Your task to perform on an android device: turn off notifications settings in the gmail app Image 0: 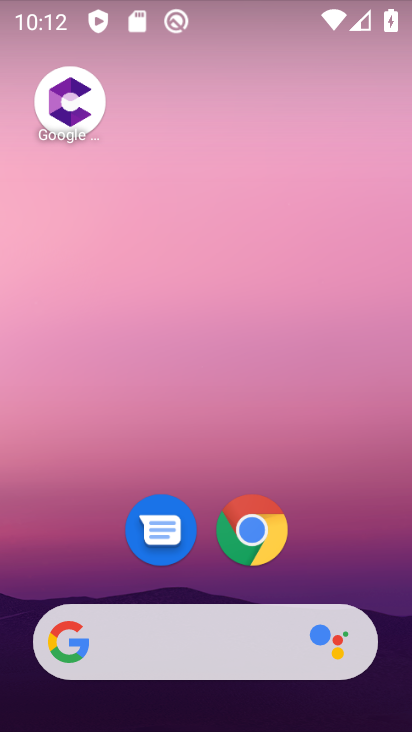
Step 0: drag from (335, 589) to (404, 17)
Your task to perform on an android device: turn off notifications settings in the gmail app Image 1: 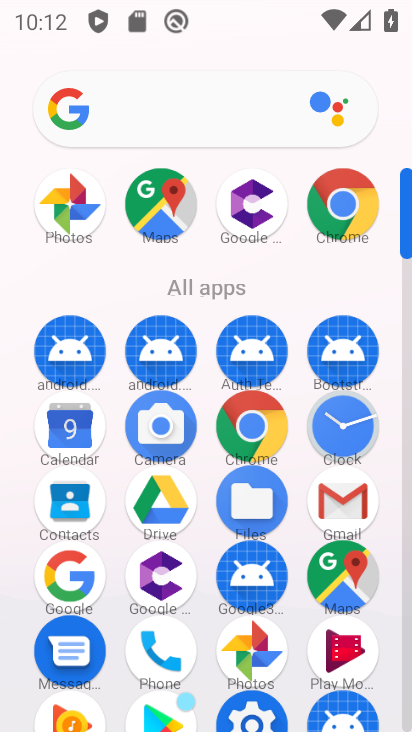
Step 1: click (349, 502)
Your task to perform on an android device: turn off notifications settings in the gmail app Image 2: 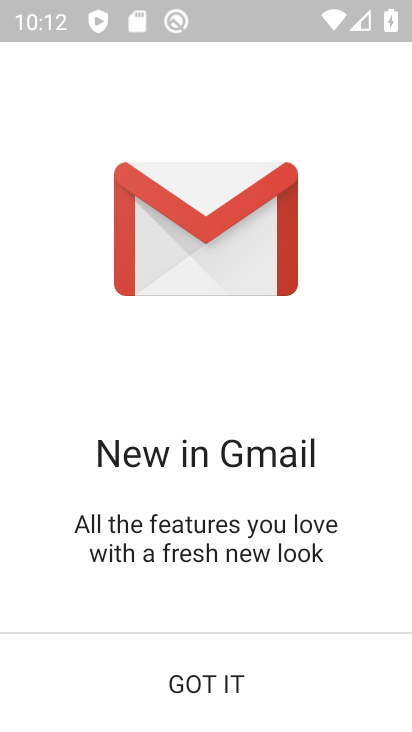
Step 2: click (322, 624)
Your task to perform on an android device: turn off notifications settings in the gmail app Image 3: 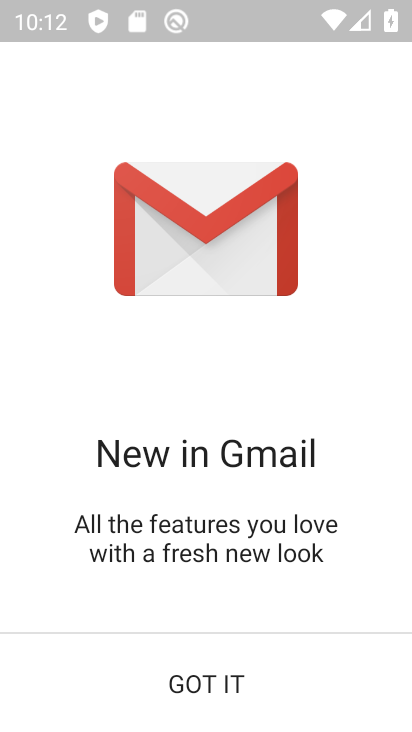
Step 3: click (310, 667)
Your task to perform on an android device: turn off notifications settings in the gmail app Image 4: 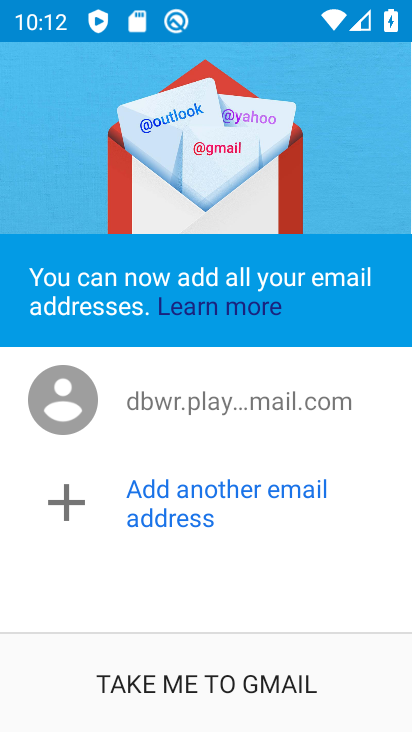
Step 4: click (326, 687)
Your task to perform on an android device: turn off notifications settings in the gmail app Image 5: 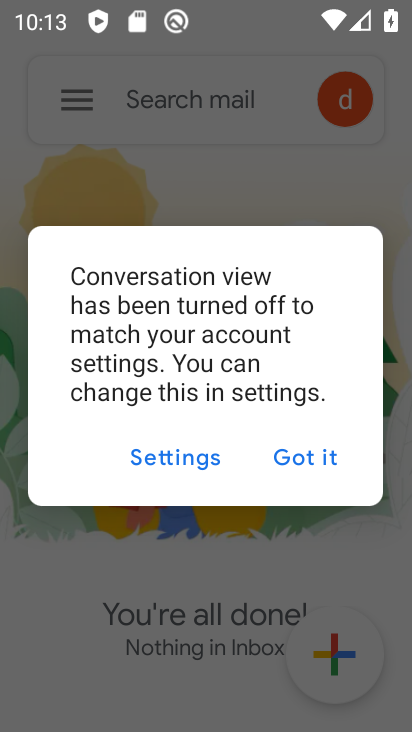
Step 5: click (309, 457)
Your task to perform on an android device: turn off notifications settings in the gmail app Image 6: 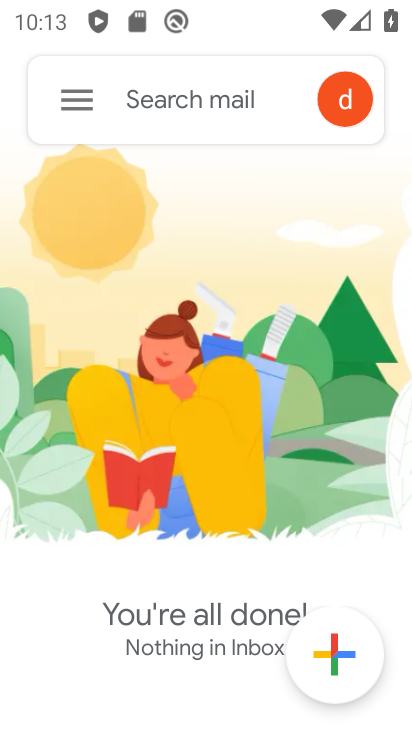
Step 6: click (92, 96)
Your task to perform on an android device: turn off notifications settings in the gmail app Image 7: 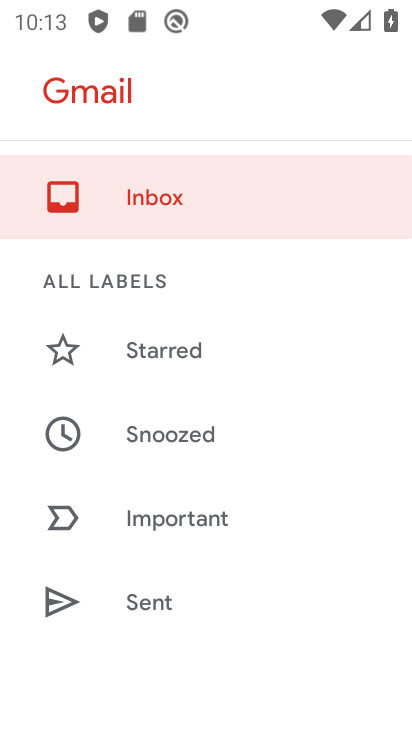
Step 7: drag from (235, 619) to (226, 292)
Your task to perform on an android device: turn off notifications settings in the gmail app Image 8: 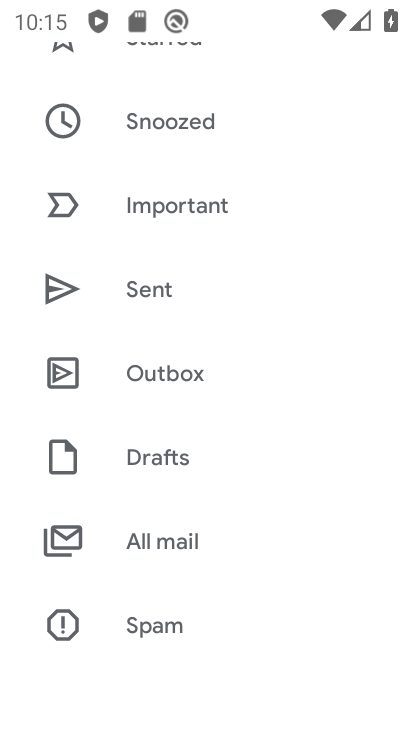
Step 8: drag from (262, 605) to (285, 22)
Your task to perform on an android device: turn off notifications settings in the gmail app Image 9: 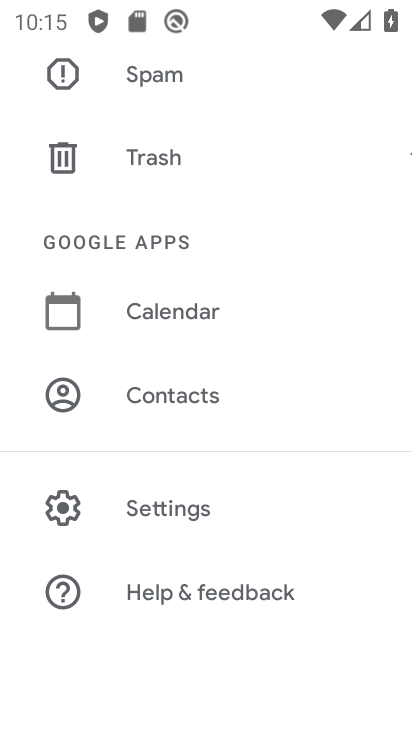
Step 9: click (249, 518)
Your task to perform on an android device: turn off notifications settings in the gmail app Image 10: 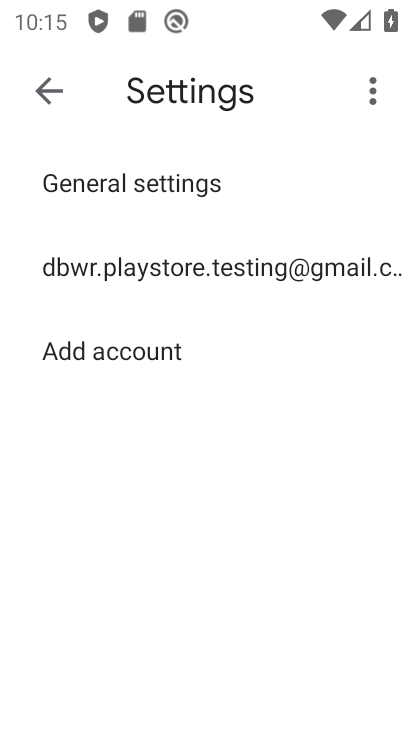
Step 10: click (193, 274)
Your task to perform on an android device: turn off notifications settings in the gmail app Image 11: 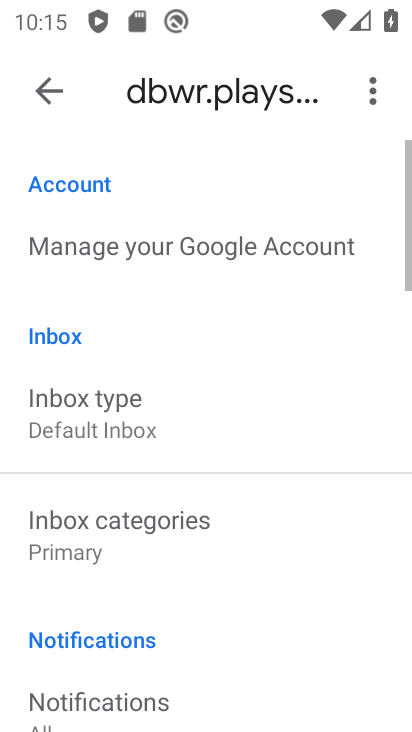
Step 11: drag from (281, 631) to (317, 191)
Your task to perform on an android device: turn off notifications settings in the gmail app Image 12: 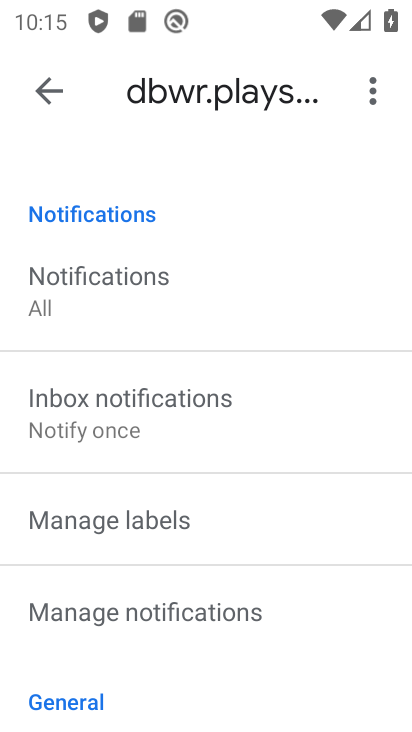
Step 12: click (268, 629)
Your task to perform on an android device: turn off notifications settings in the gmail app Image 13: 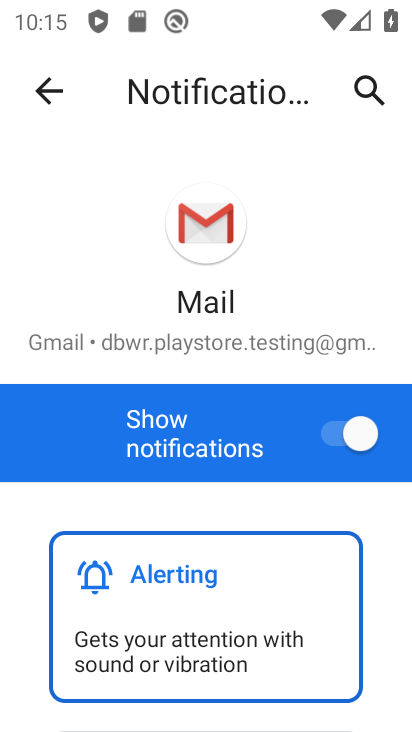
Step 13: click (321, 435)
Your task to perform on an android device: turn off notifications settings in the gmail app Image 14: 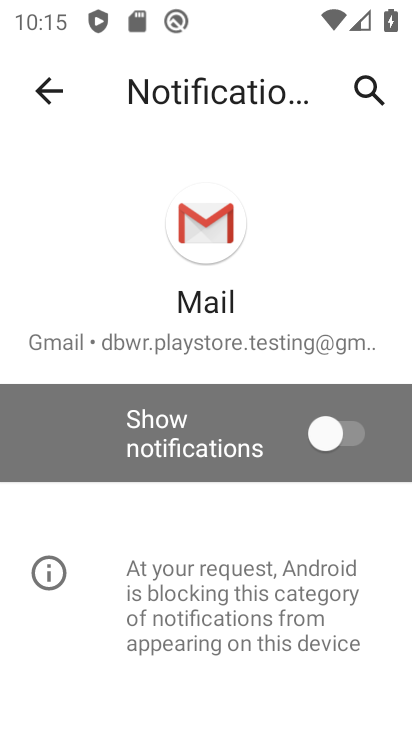
Step 14: task complete